Your task to perform on an android device: turn off smart reply in the gmail app Image 0: 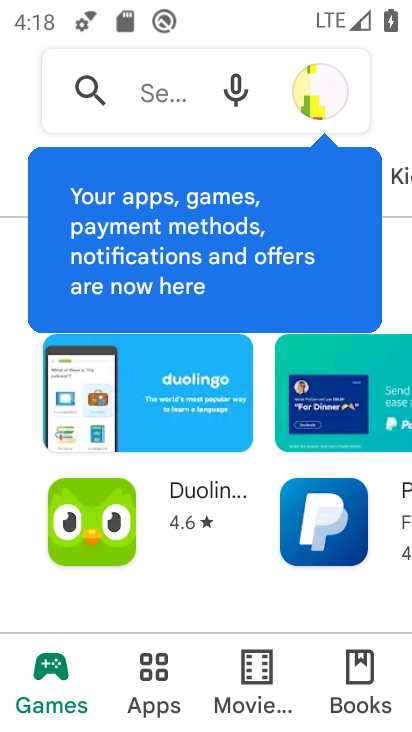
Step 0: press home button
Your task to perform on an android device: turn off smart reply in the gmail app Image 1: 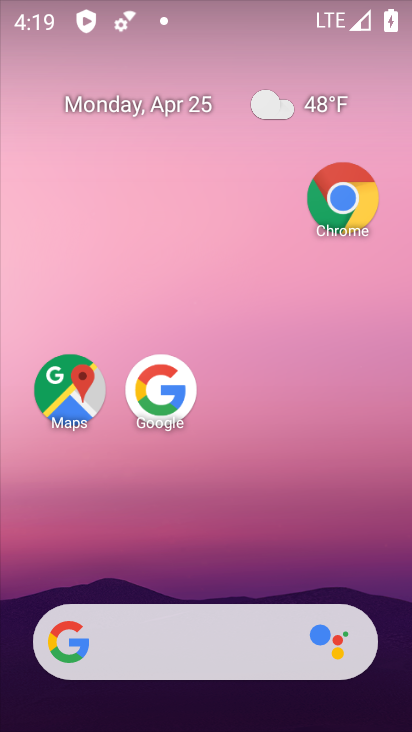
Step 1: drag from (157, 616) to (313, 90)
Your task to perform on an android device: turn off smart reply in the gmail app Image 2: 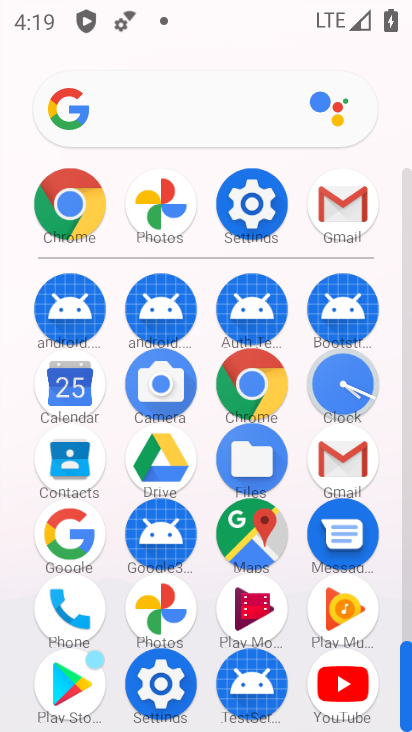
Step 2: click (341, 481)
Your task to perform on an android device: turn off smart reply in the gmail app Image 3: 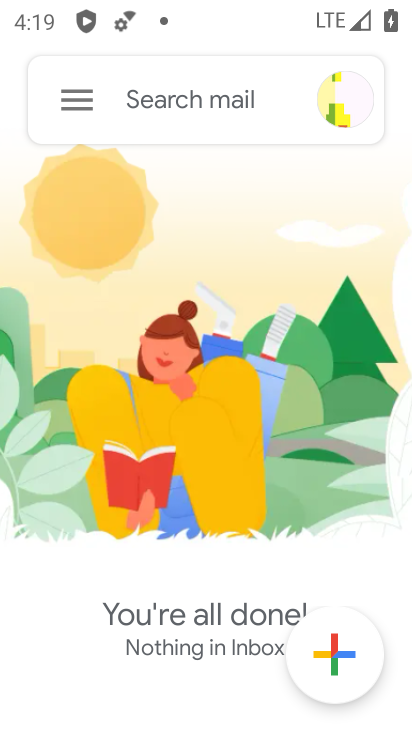
Step 3: click (76, 103)
Your task to perform on an android device: turn off smart reply in the gmail app Image 4: 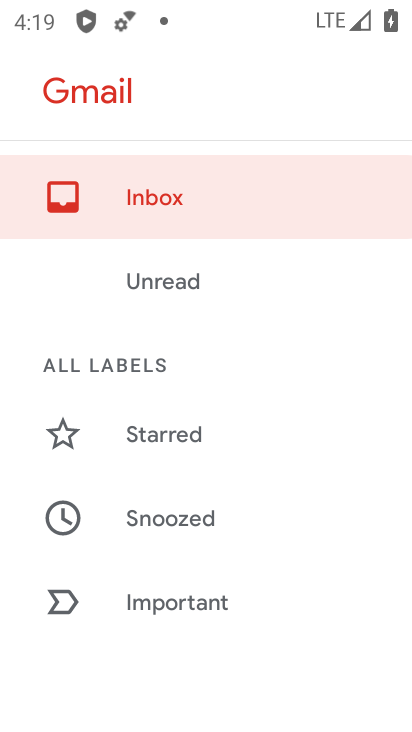
Step 4: drag from (157, 596) to (282, 195)
Your task to perform on an android device: turn off smart reply in the gmail app Image 5: 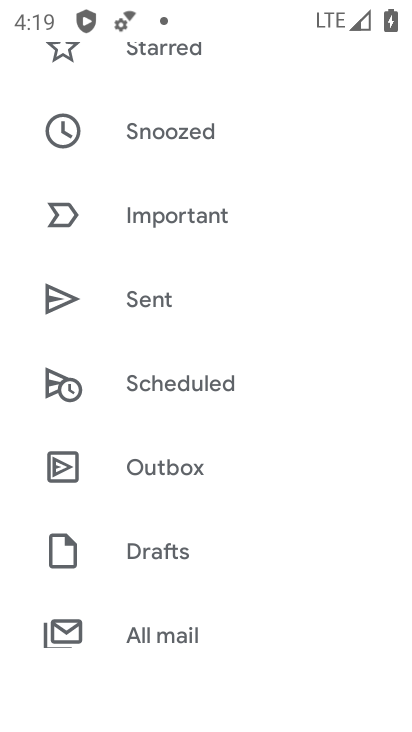
Step 5: drag from (221, 613) to (315, 104)
Your task to perform on an android device: turn off smart reply in the gmail app Image 6: 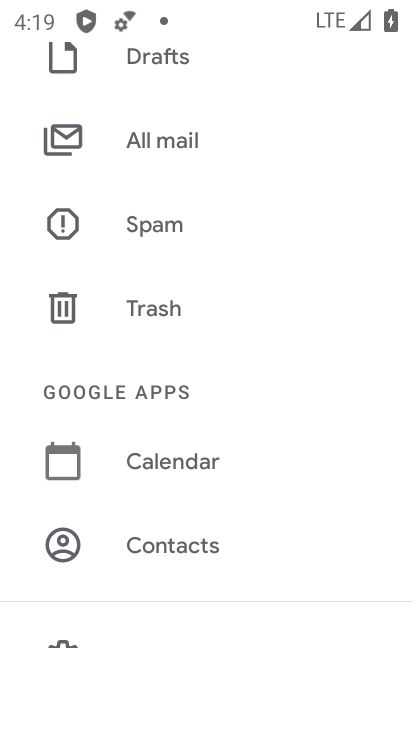
Step 6: drag from (190, 616) to (267, 200)
Your task to perform on an android device: turn off smart reply in the gmail app Image 7: 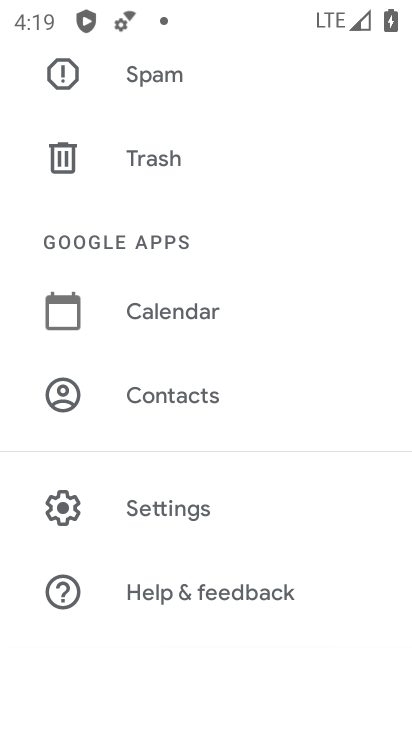
Step 7: click (193, 503)
Your task to perform on an android device: turn off smart reply in the gmail app Image 8: 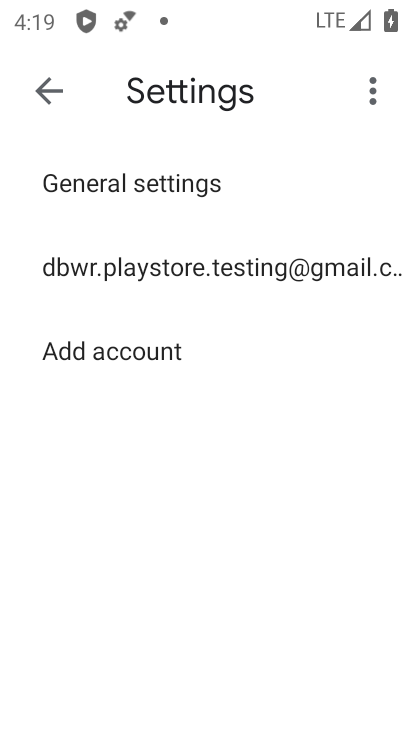
Step 8: click (224, 258)
Your task to perform on an android device: turn off smart reply in the gmail app Image 9: 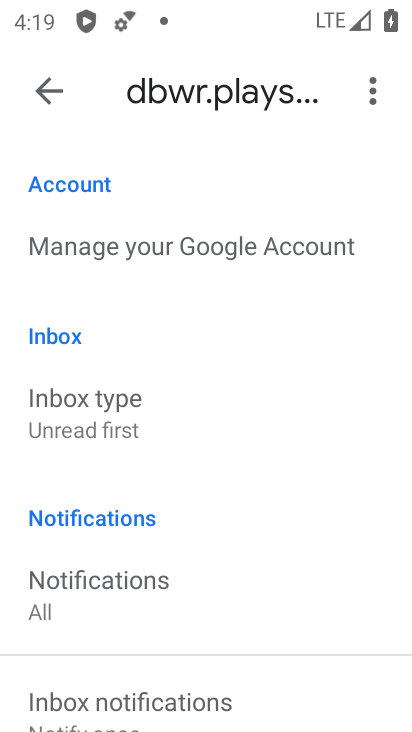
Step 9: drag from (208, 573) to (339, 136)
Your task to perform on an android device: turn off smart reply in the gmail app Image 10: 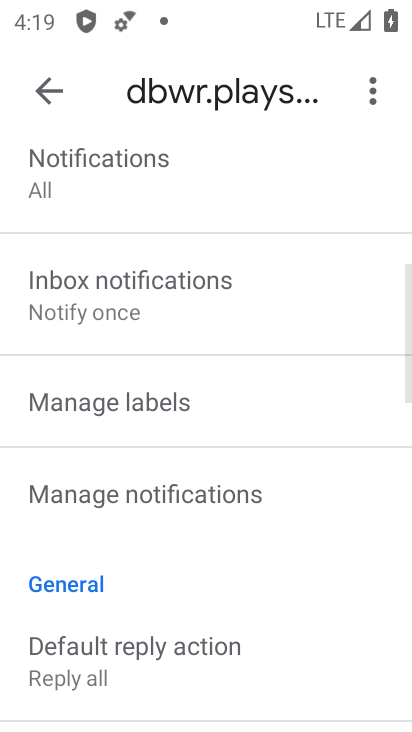
Step 10: drag from (262, 610) to (381, 112)
Your task to perform on an android device: turn off smart reply in the gmail app Image 11: 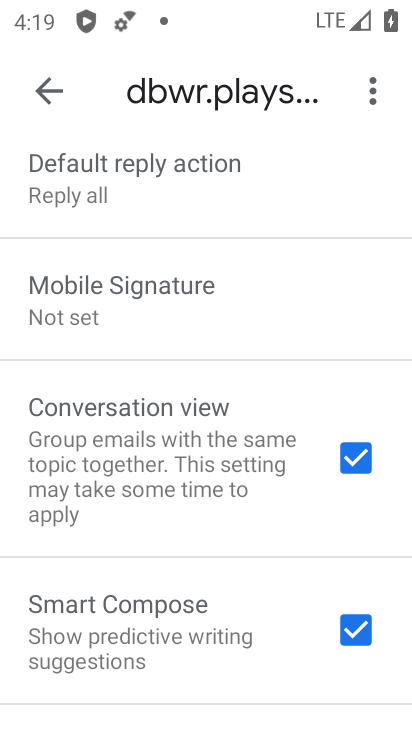
Step 11: drag from (203, 556) to (290, 157)
Your task to perform on an android device: turn off smart reply in the gmail app Image 12: 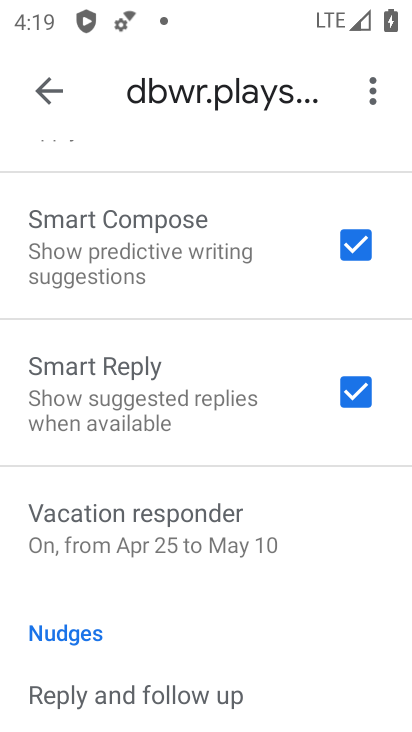
Step 12: click (361, 388)
Your task to perform on an android device: turn off smart reply in the gmail app Image 13: 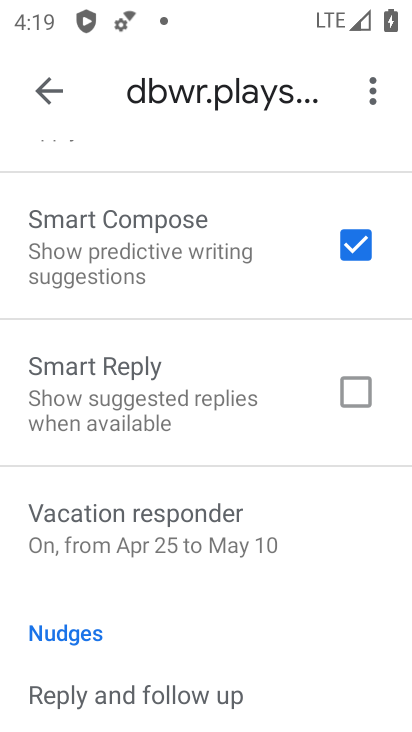
Step 13: task complete